Your task to perform on an android device: open sync settings in chrome Image 0: 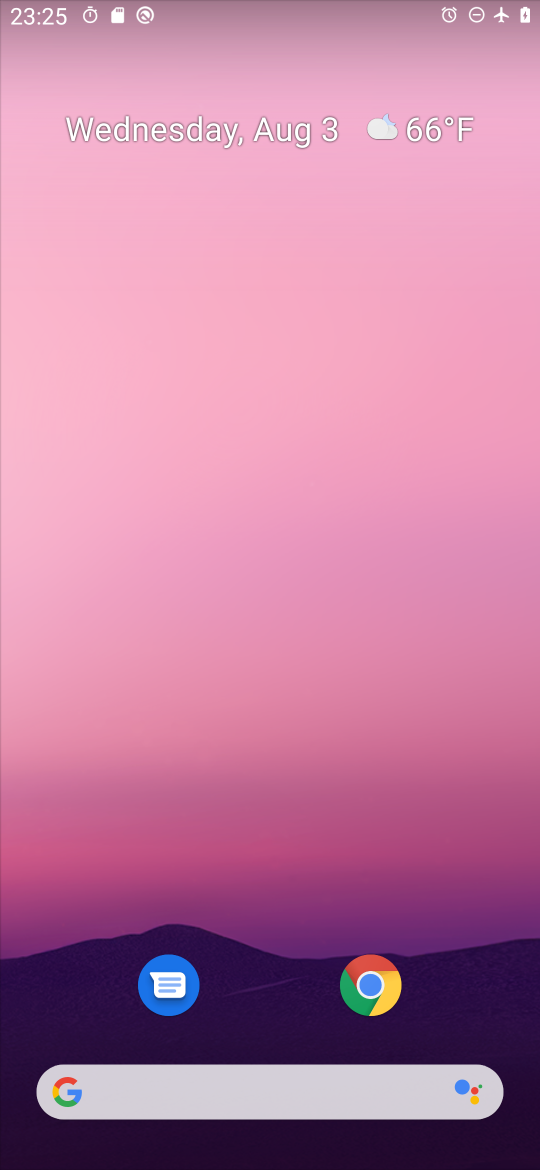
Step 0: click (364, 979)
Your task to perform on an android device: open sync settings in chrome Image 1: 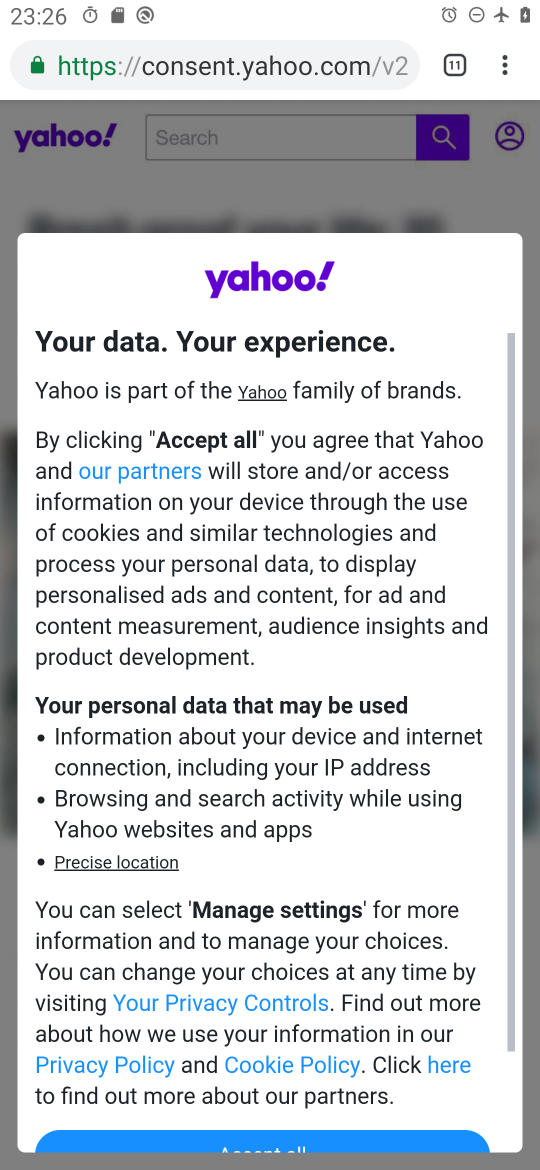
Step 1: click (508, 65)
Your task to perform on an android device: open sync settings in chrome Image 2: 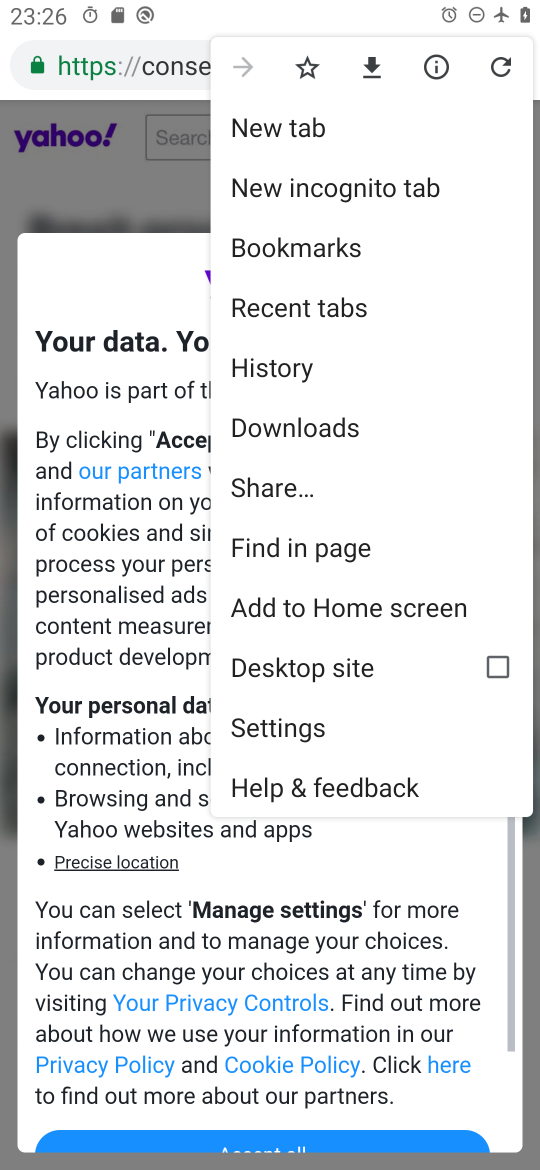
Step 2: click (298, 724)
Your task to perform on an android device: open sync settings in chrome Image 3: 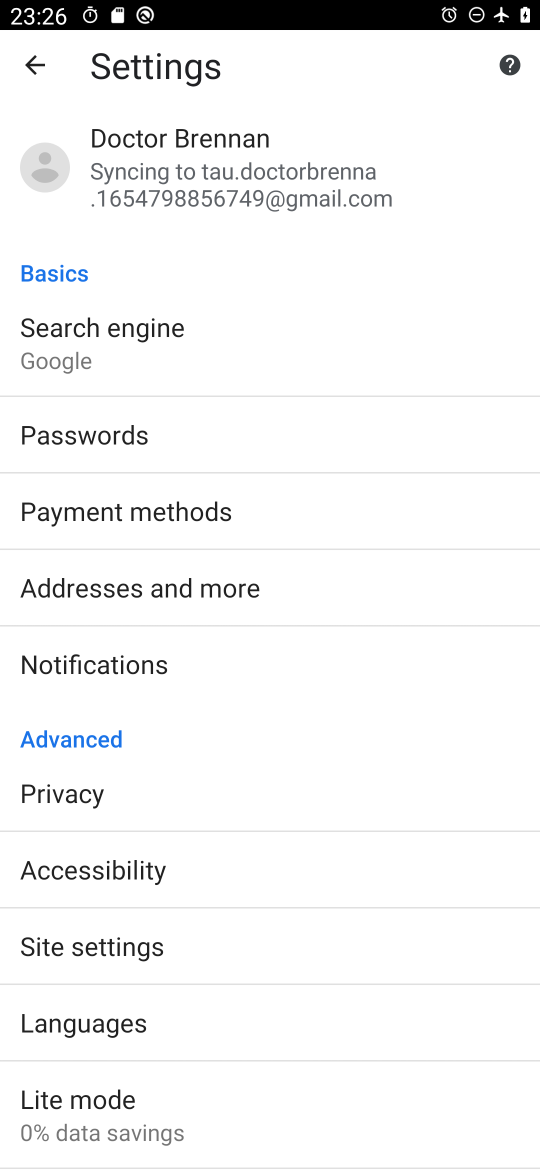
Step 3: click (224, 190)
Your task to perform on an android device: open sync settings in chrome Image 4: 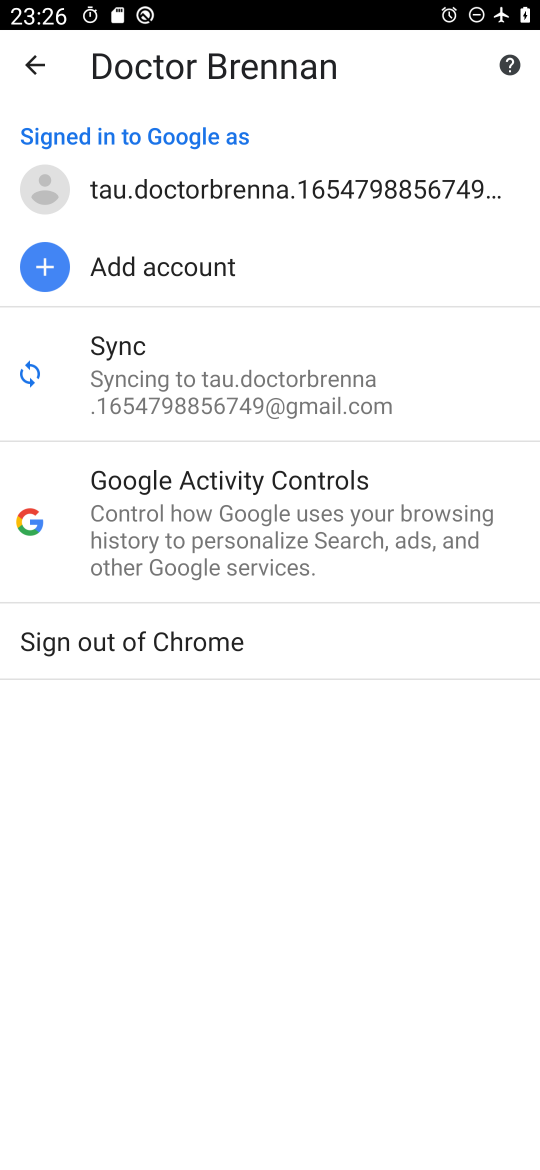
Step 4: click (198, 370)
Your task to perform on an android device: open sync settings in chrome Image 5: 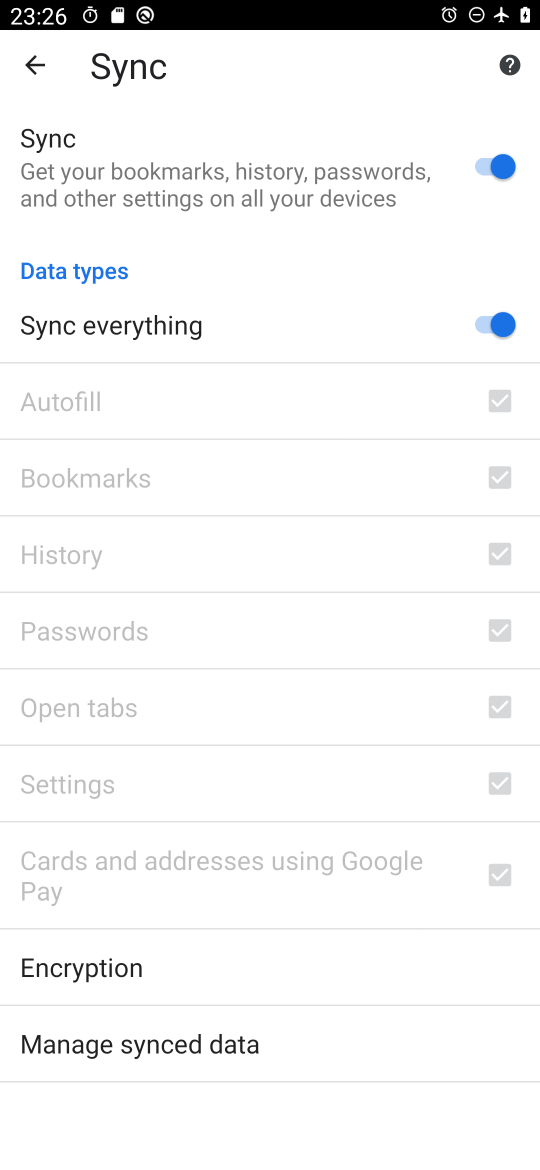
Step 5: task complete